Your task to perform on an android device: Go to notification settings Image 0: 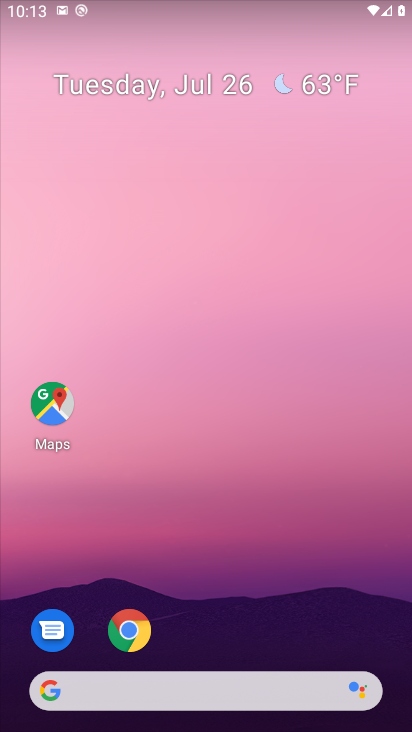
Step 0: press home button
Your task to perform on an android device: Go to notification settings Image 1: 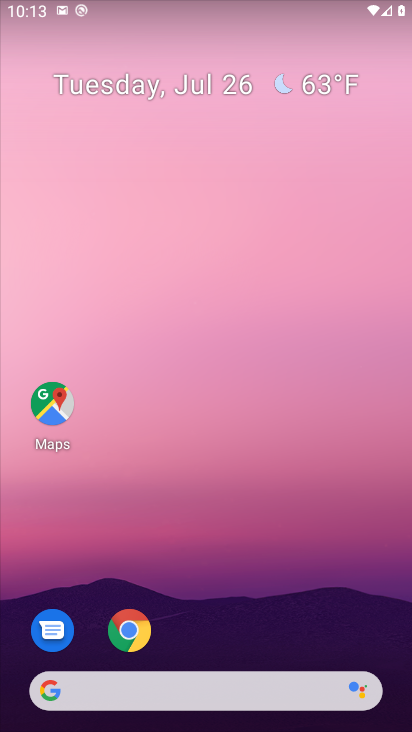
Step 1: drag from (226, 636) to (248, 41)
Your task to perform on an android device: Go to notification settings Image 2: 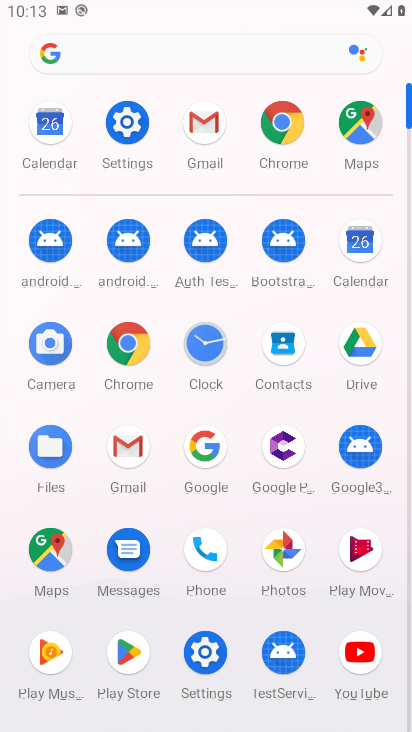
Step 2: click (122, 119)
Your task to perform on an android device: Go to notification settings Image 3: 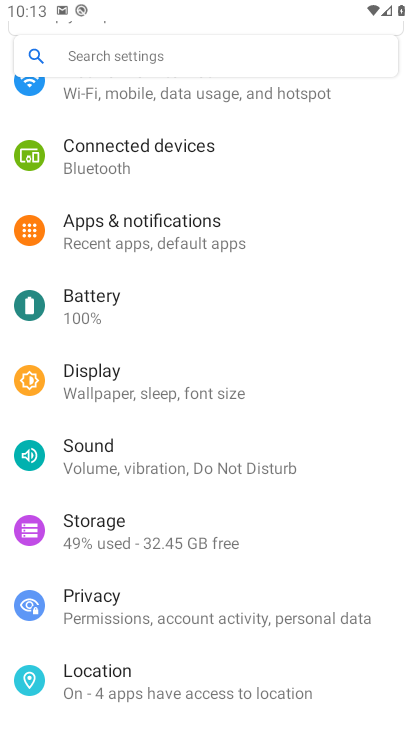
Step 3: click (205, 232)
Your task to perform on an android device: Go to notification settings Image 4: 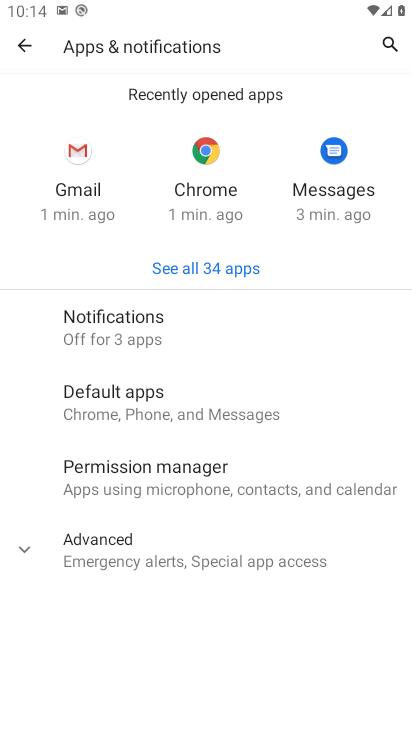
Step 4: click (140, 323)
Your task to perform on an android device: Go to notification settings Image 5: 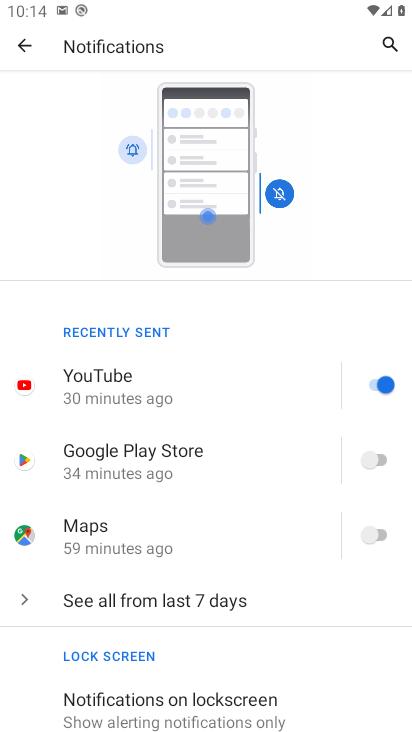
Step 5: drag from (239, 670) to (226, 206)
Your task to perform on an android device: Go to notification settings Image 6: 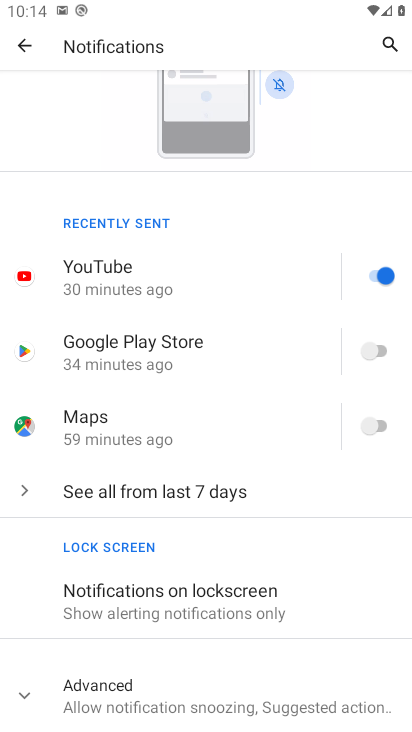
Step 6: click (39, 694)
Your task to perform on an android device: Go to notification settings Image 7: 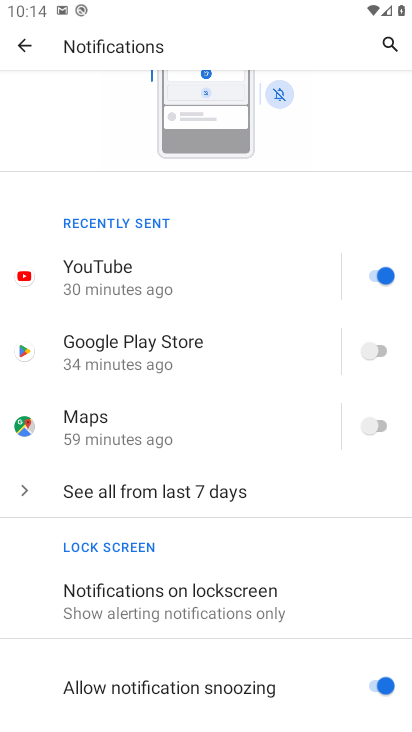
Step 7: task complete